Your task to perform on an android device: Set the phone to "Do not disturb". Image 0: 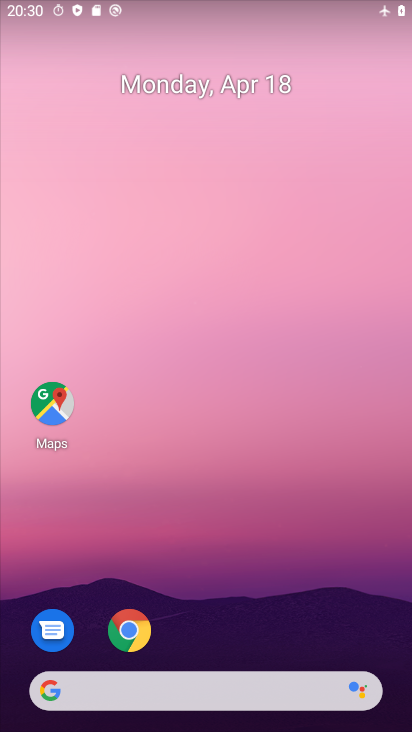
Step 0: drag from (236, 574) to (327, 126)
Your task to perform on an android device: Set the phone to "Do not disturb". Image 1: 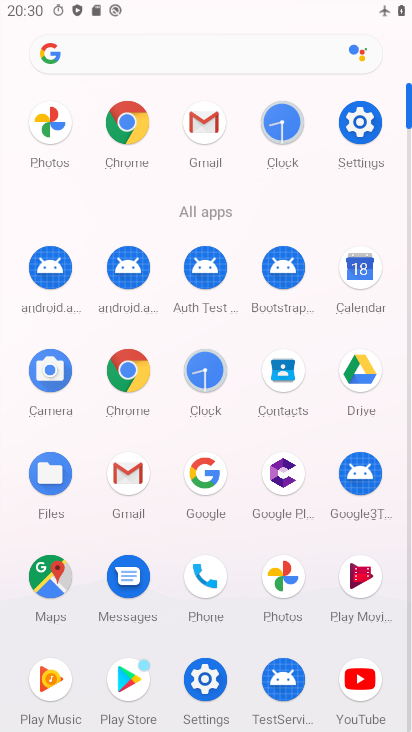
Step 1: click (197, 668)
Your task to perform on an android device: Set the phone to "Do not disturb". Image 2: 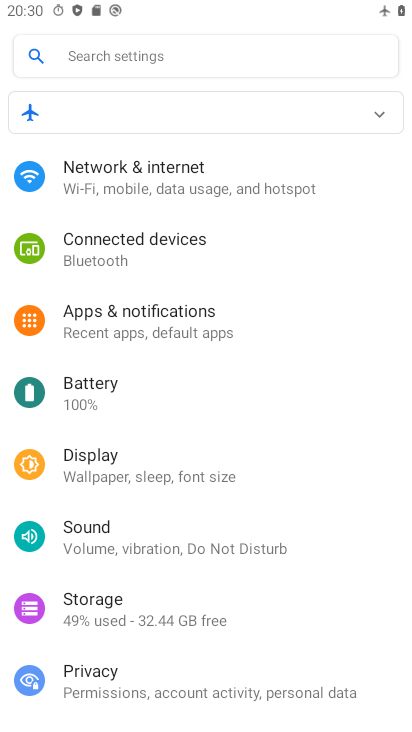
Step 2: click (141, 546)
Your task to perform on an android device: Set the phone to "Do not disturb". Image 3: 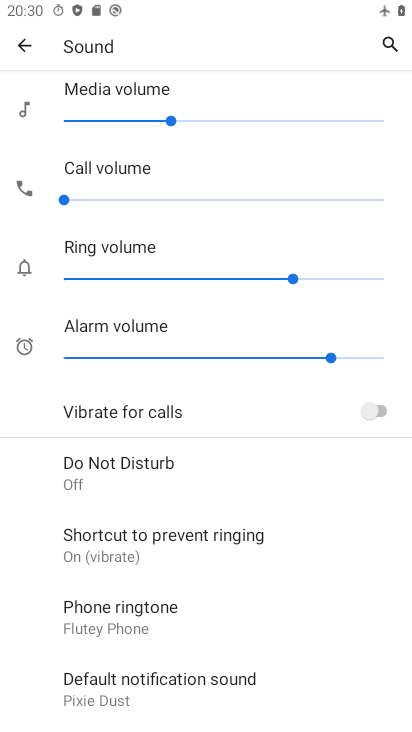
Step 3: click (131, 470)
Your task to perform on an android device: Set the phone to "Do not disturb". Image 4: 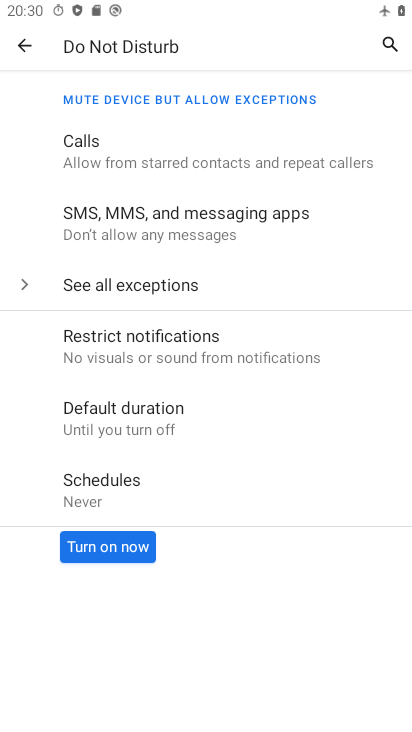
Step 4: click (124, 550)
Your task to perform on an android device: Set the phone to "Do not disturb". Image 5: 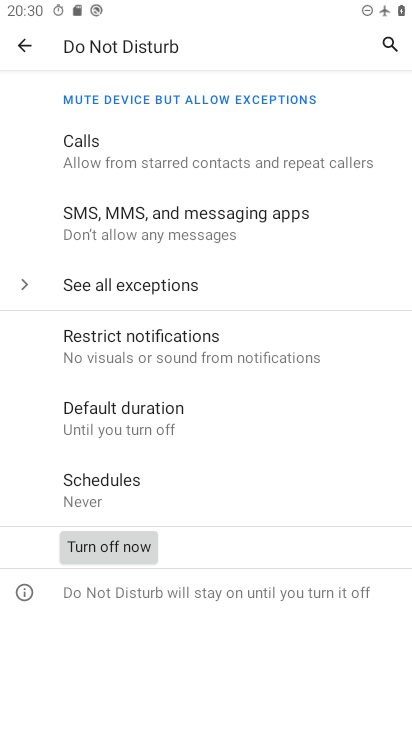
Step 5: task complete